Your task to perform on an android device: Open maps Image 0: 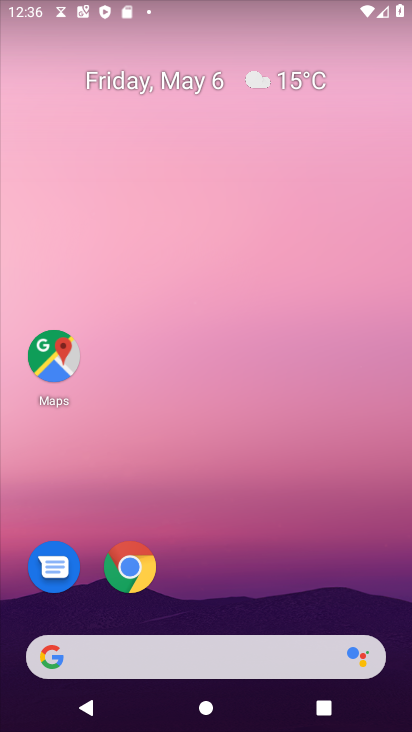
Step 0: drag from (327, 558) to (384, 120)
Your task to perform on an android device: Open maps Image 1: 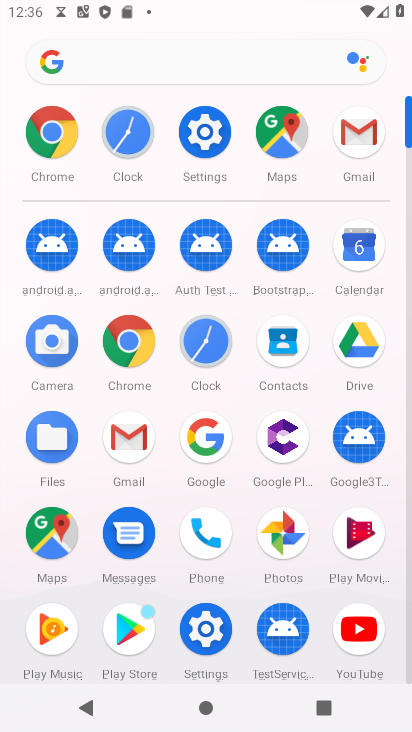
Step 1: click (283, 138)
Your task to perform on an android device: Open maps Image 2: 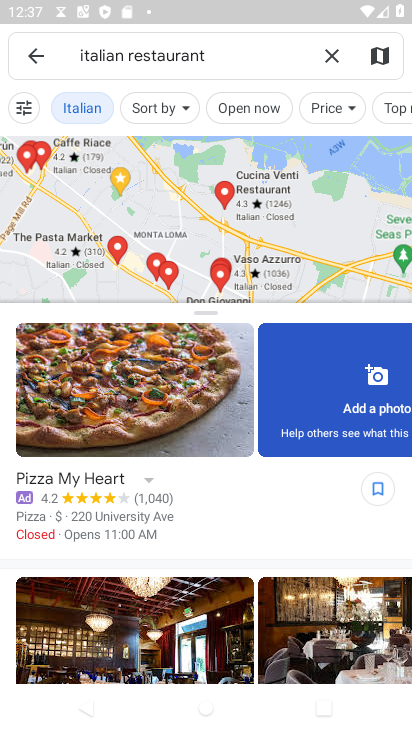
Step 2: task complete